Your task to perform on an android device: delete a single message in the gmail app Image 0: 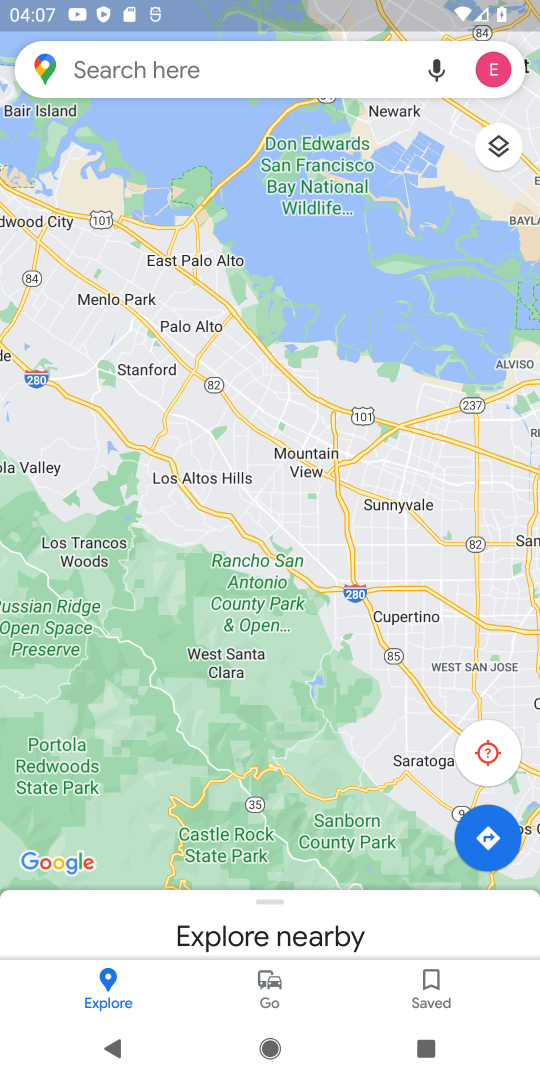
Step 0: press home button
Your task to perform on an android device: delete a single message in the gmail app Image 1: 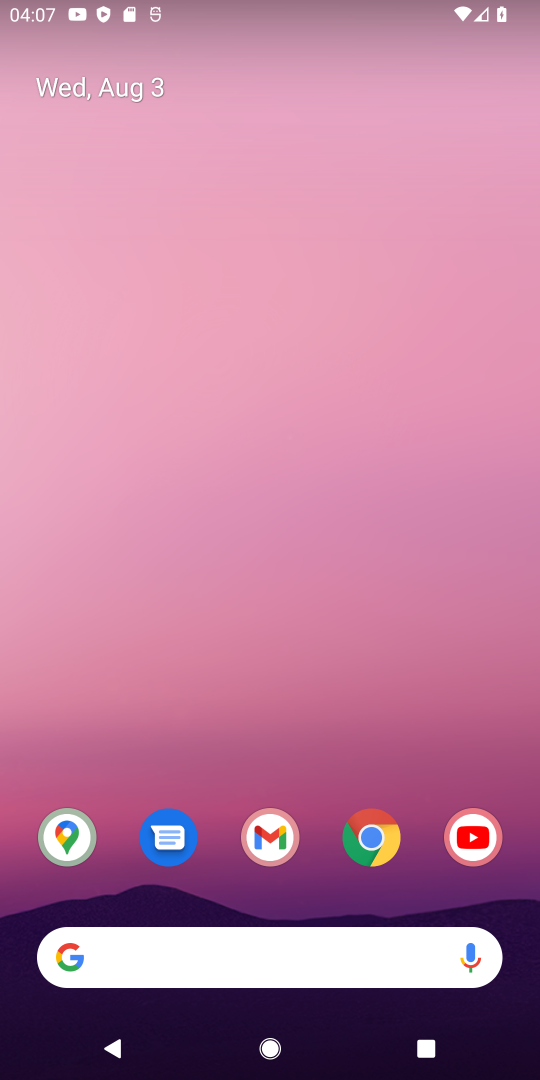
Step 1: click (270, 838)
Your task to perform on an android device: delete a single message in the gmail app Image 2: 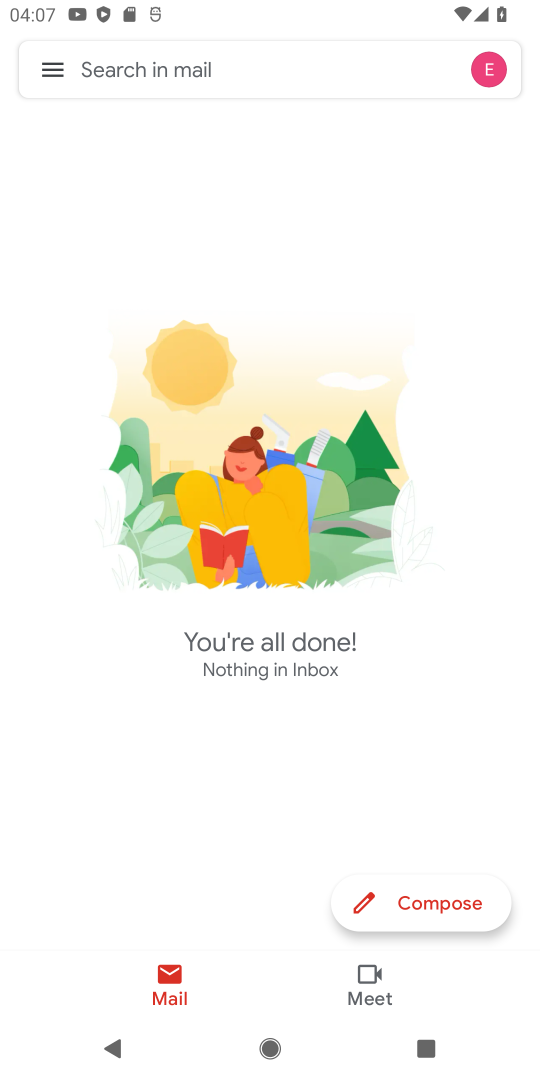
Step 2: click (51, 68)
Your task to perform on an android device: delete a single message in the gmail app Image 3: 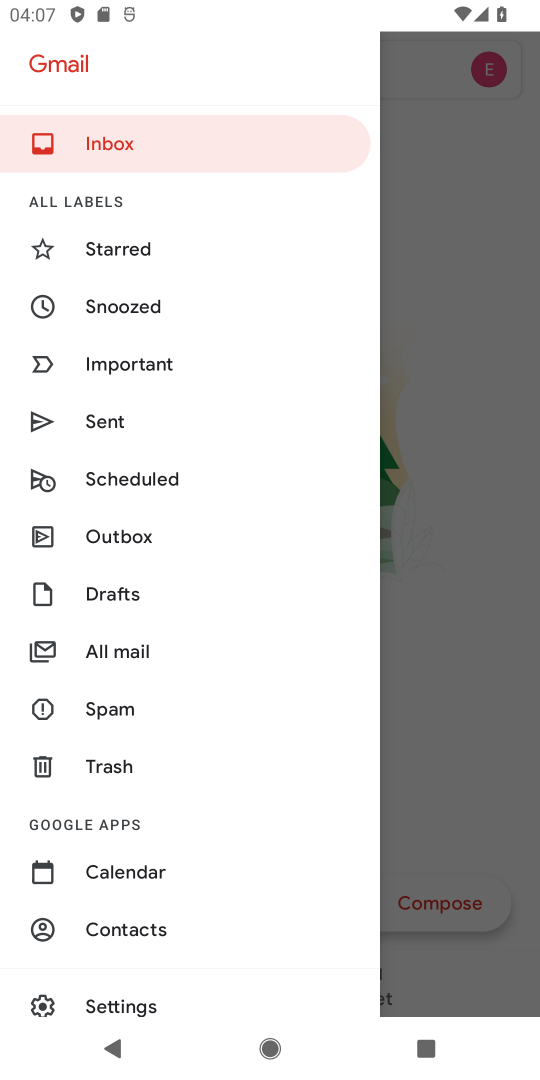
Step 3: click (109, 645)
Your task to perform on an android device: delete a single message in the gmail app Image 4: 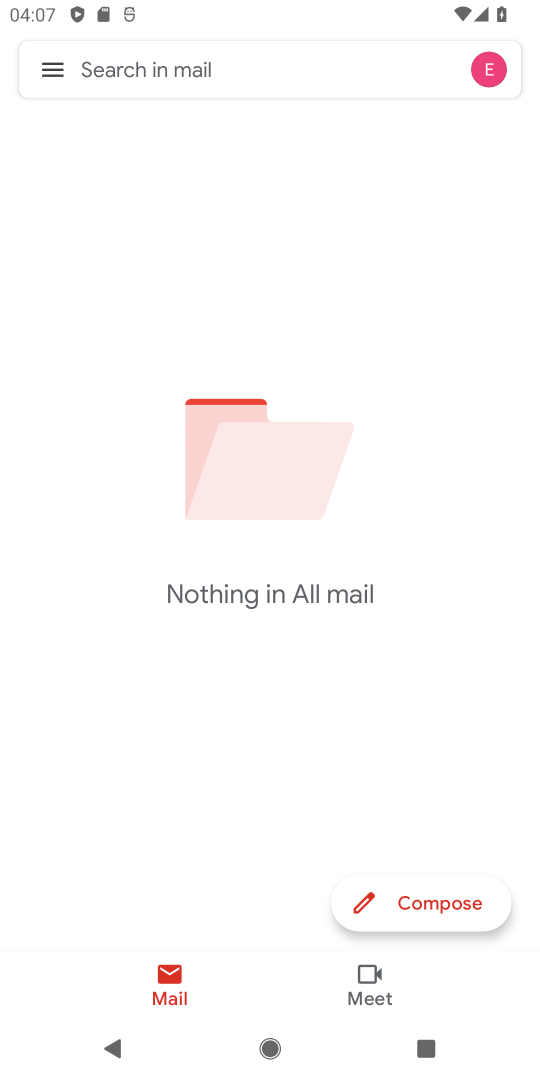
Step 4: task complete